Your task to perform on an android device: Go to ESPN.com Image 0: 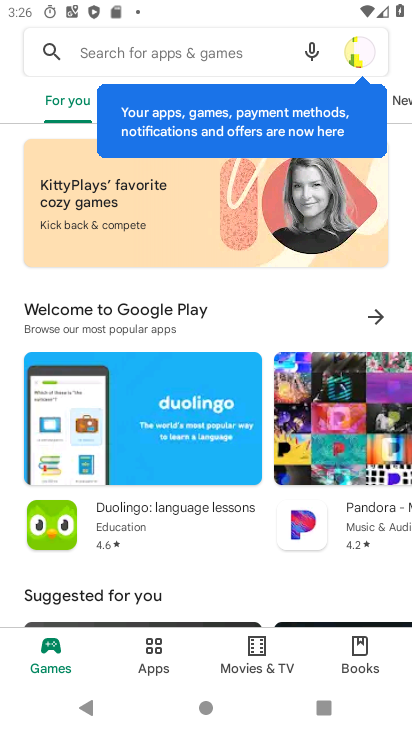
Step 0: press home button
Your task to perform on an android device: Go to ESPN.com Image 1: 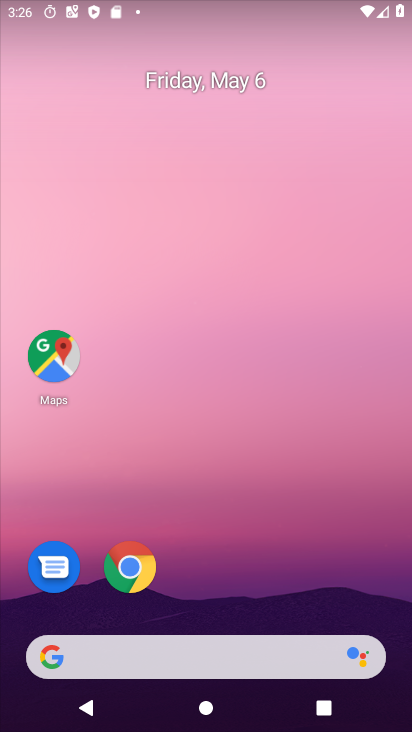
Step 1: click (132, 569)
Your task to perform on an android device: Go to ESPN.com Image 2: 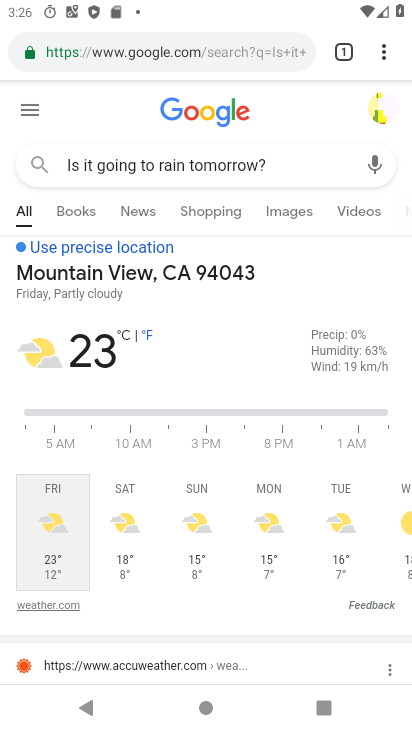
Step 2: click (179, 160)
Your task to perform on an android device: Go to ESPN.com Image 3: 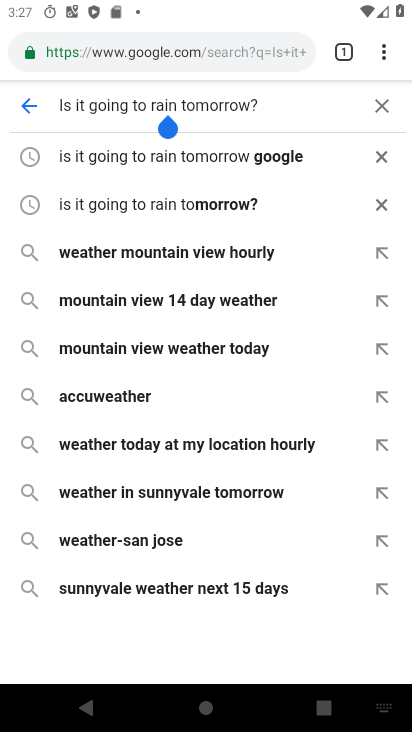
Step 3: click (377, 106)
Your task to perform on an android device: Go to ESPN.com Image 4: 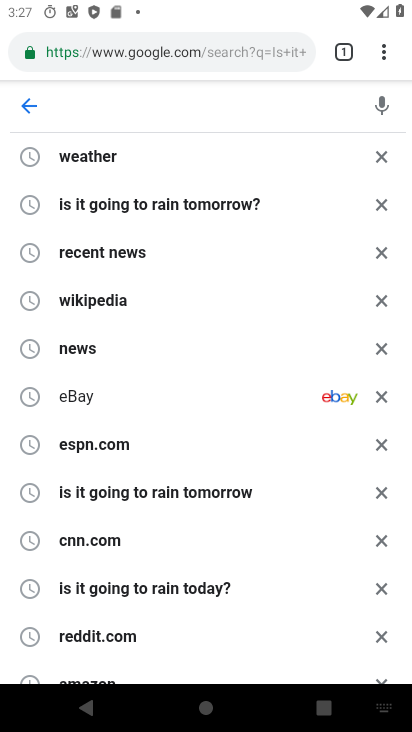
Step 4: type "espn.com"
Your task to perform on an android device: Go to ESPN.com Image 5: 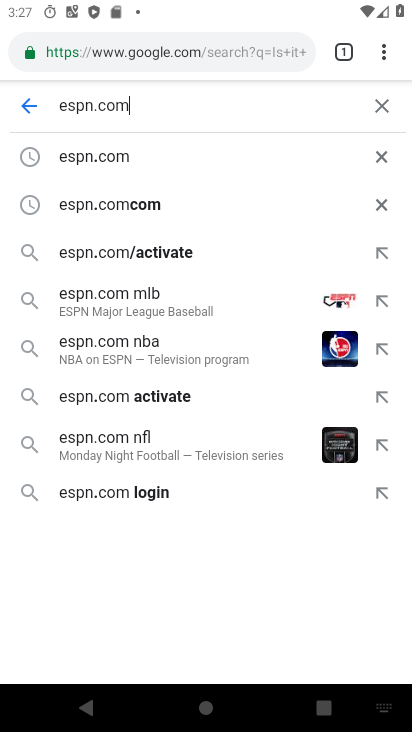
Step 5: click (174, 155)
Your task to perform on an android device: Go to ESPN.com Image 6: 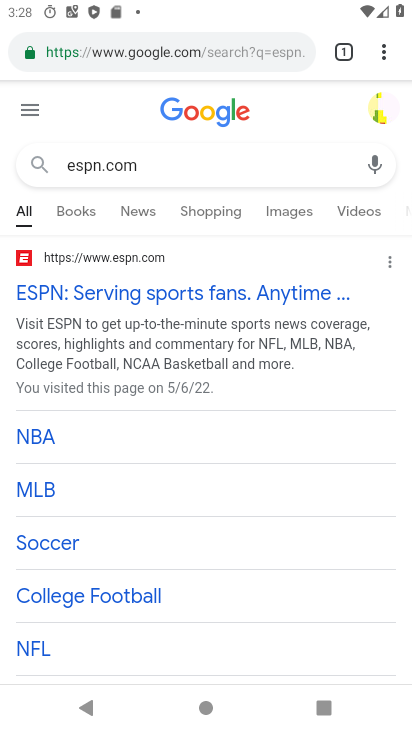
Step 6: task complete